Your task to perform on an android device: refresh tabs in the chrome app Image 0: 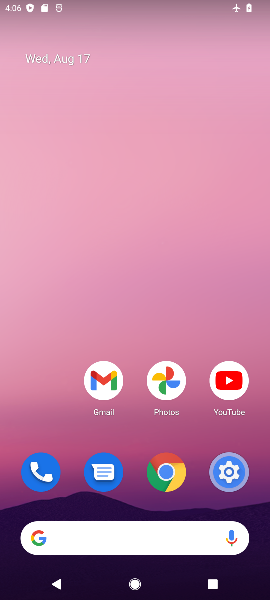
Step 0: click (159, 469)
Your task to perform on an android device: refresh tabs in the chrome app Image 1: 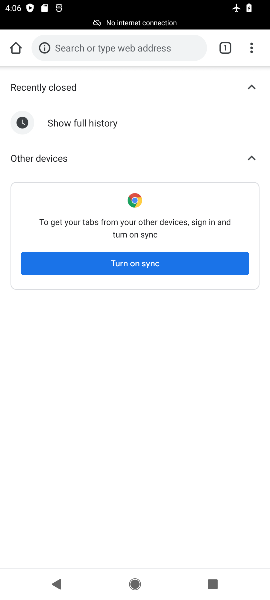
Step 1: click (257, 43)
Your task to perform on an android device: refresh tabs in the chrome app Image 2: 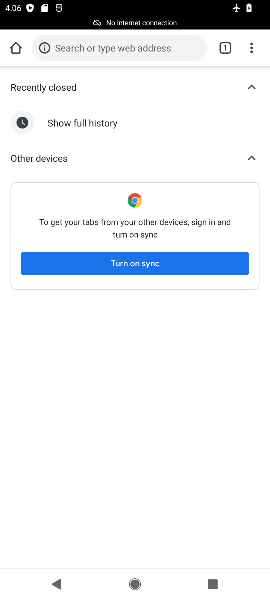
Step 2: click (251, 46)
Your task to perform on an android device: refresh tabs in the chrome app Image 3: 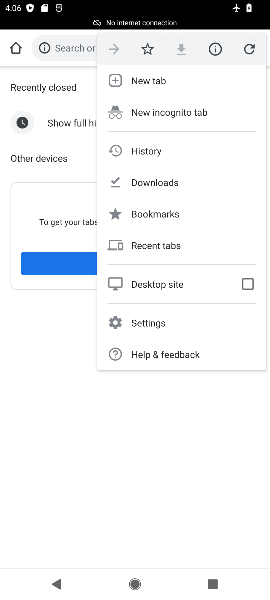
Step 3: click (245, 48)
Your task to perform on an android device: refresh tabs in the chrome app Image 4: 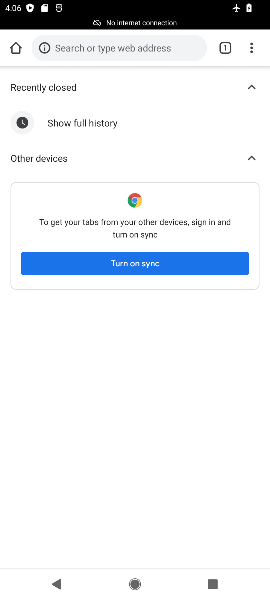
Step 4: task complete